Your task to perform on an android device: toggle airplane mode Image 0: 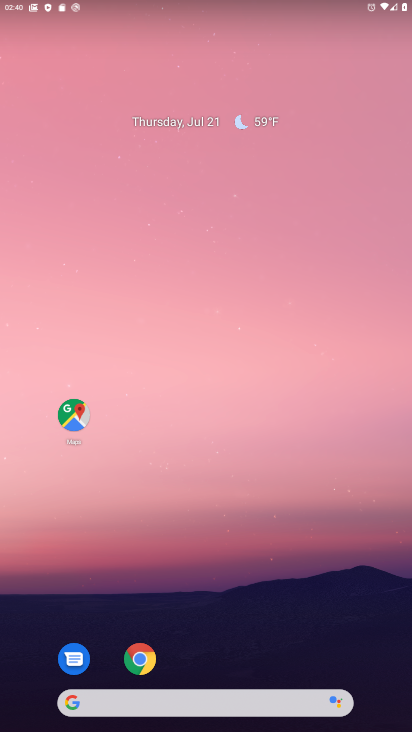
Step 0: click (267, 118)
Your task to perform on an android device: toggle airplane mode Image 1: 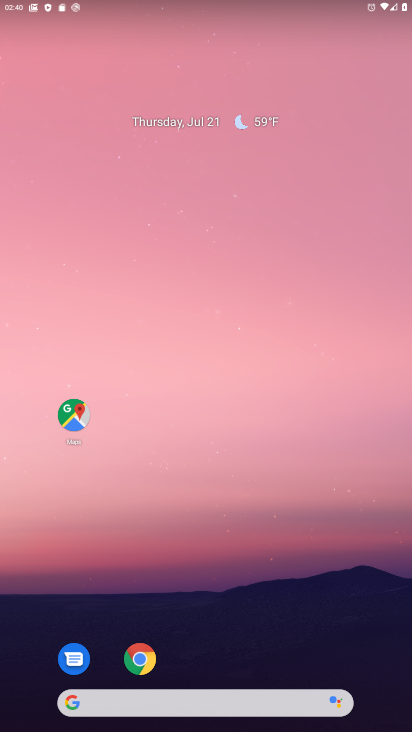
Step 1: drag from (295, 628) to (205, 33)
Your task to perform on an android device: toggle airplane mode Image 2: 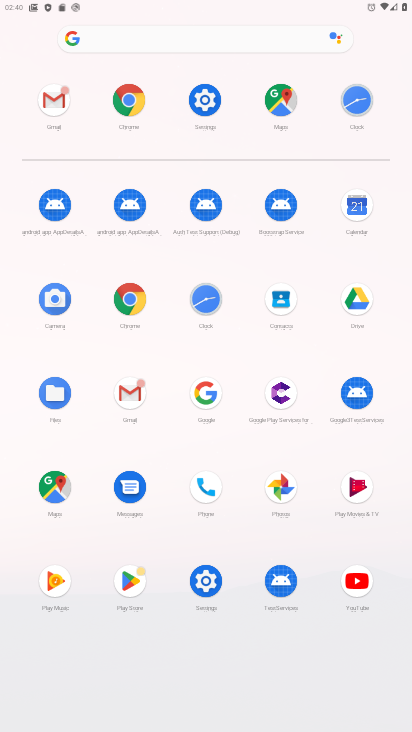
Step 2: click (209, 93)
Your task to perform on an android device: toggle airplane mode Image 3: 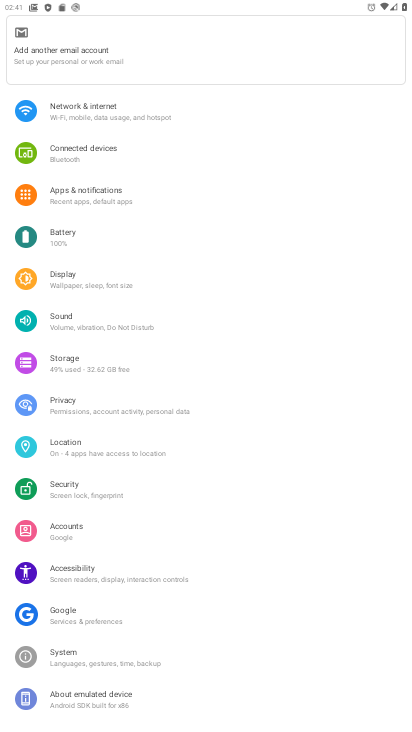
Step 3: click (93, 119)
Your task to perform on an android device: toggle airplane mode Image 4: 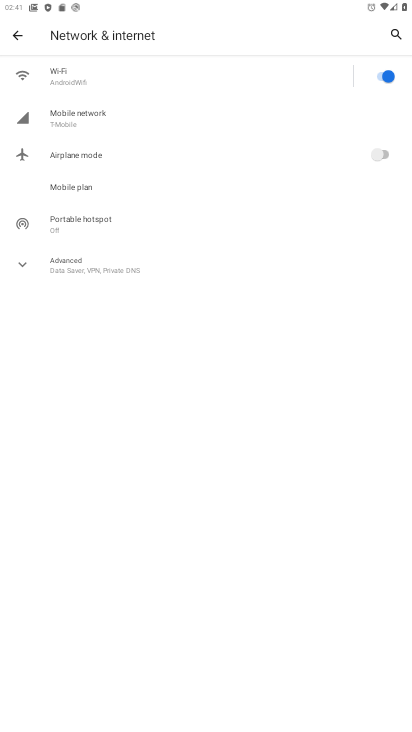
Step 4: click (385, 158)
Your task to perform on an android device: toggle airplane mode Image 5: 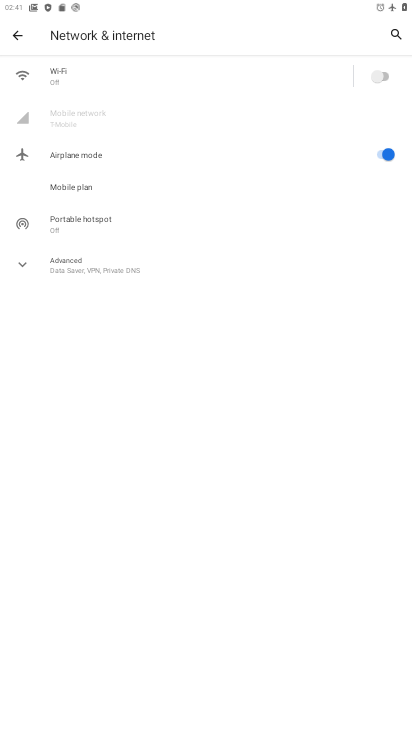
Step 5: task complete